Your task to perform on an android device: Open settings Image 0: 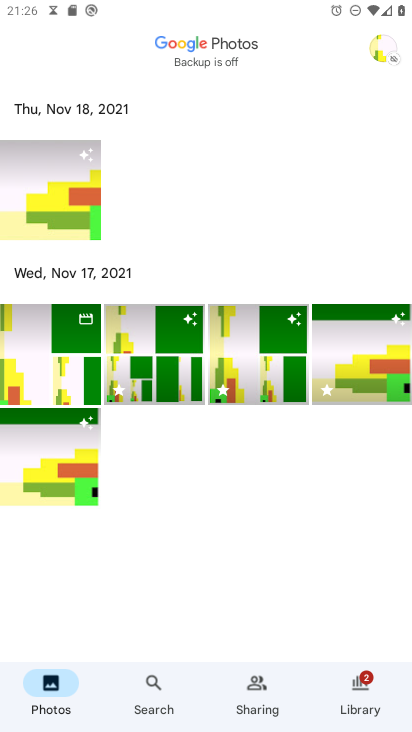
Step 0: press home button
Your task to perform on an android device: Open settings Image 1: 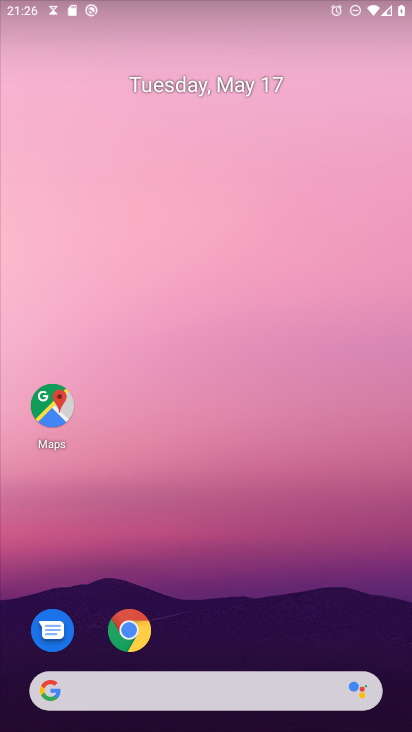
Step 1: drag from (252, 583) to (128, 72)
Your task to perform on an android device: Open settings Image 2: 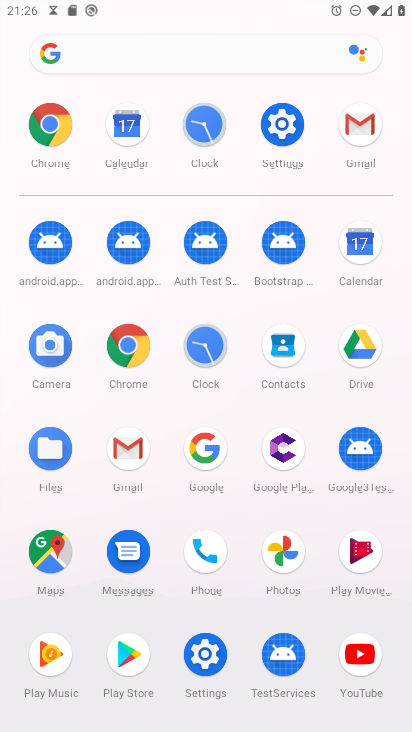
Step 2: click (282, 116)
Your task to perform on an android device: Open settings Image 3: 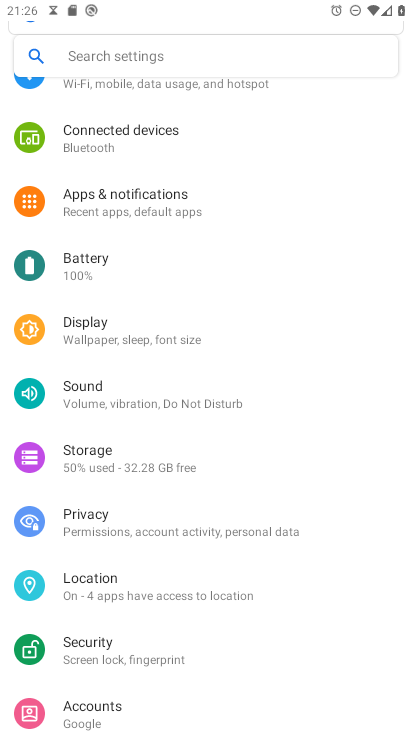
Step 3: task complete